Your task to perform on an android device: Open Google Image 0: 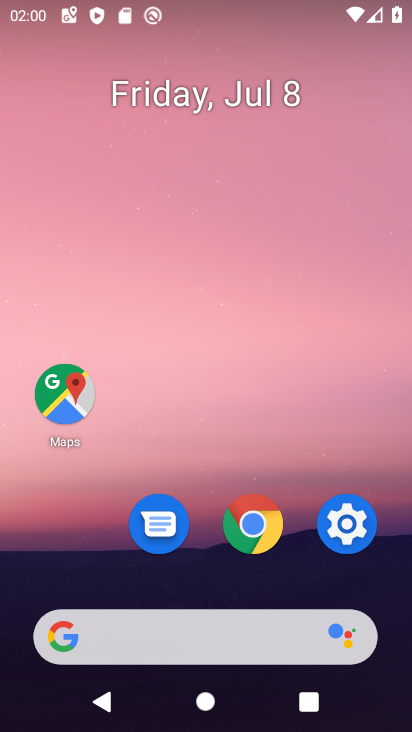
Step 0: click (52, 652)
Your task to perform on an android device: Open Google Image 1: 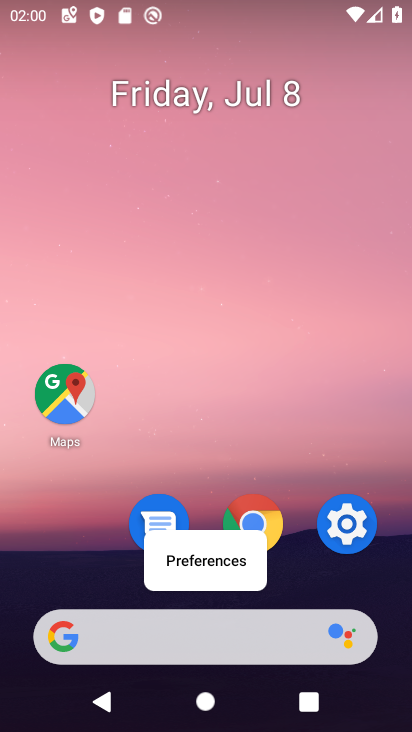
Step 1: click (65, 627)
Your task to perform on an android device: Open Google Image 2: 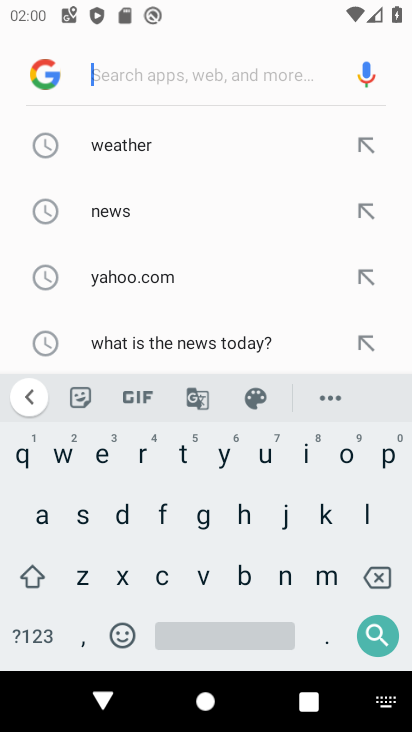
Step 2: click (35, 75)
Your task to perform on an android device: Open Google Image 3: 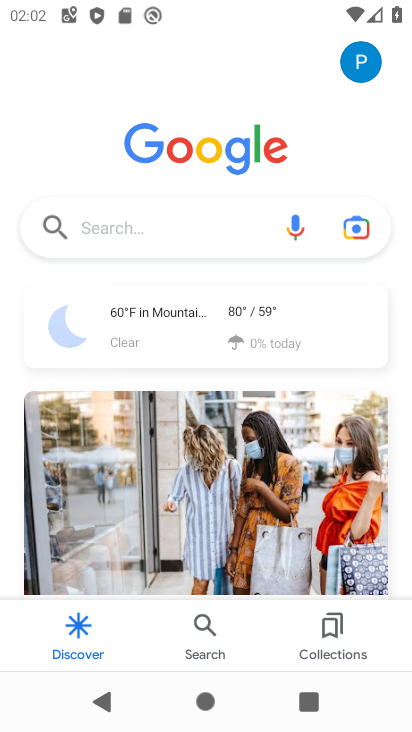
Step 3: task complete